Your task to perform on an android device: change the clock display to analog Image 0: 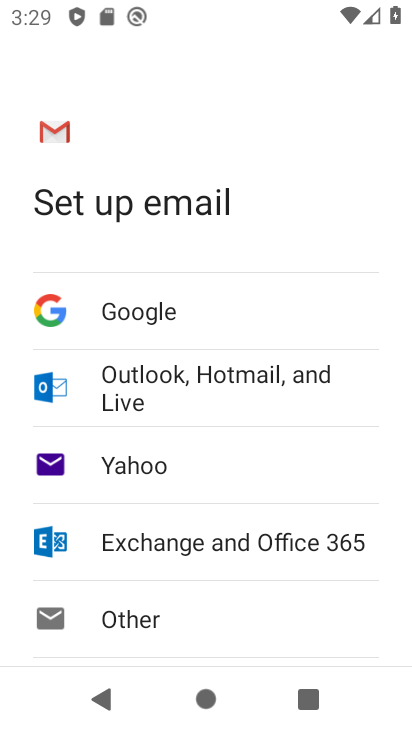
Step 0: press home button
Your task to perform on an android device: change the clock display to analog Image 1: 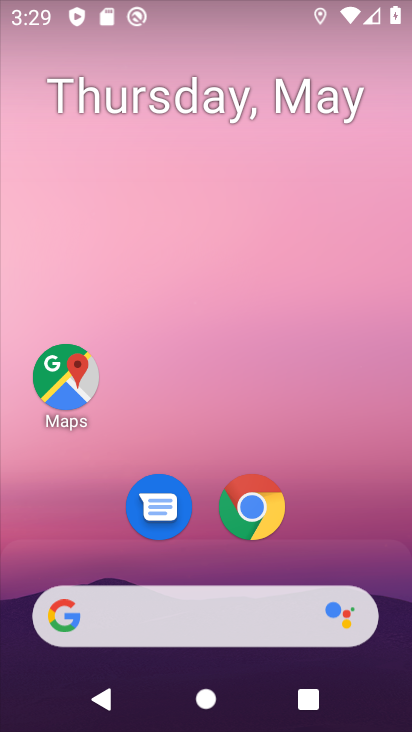
Step 1: drag from (293, 564) to (229, 2)
Your task to perform on an android device: change the clock display to analog Image 2: 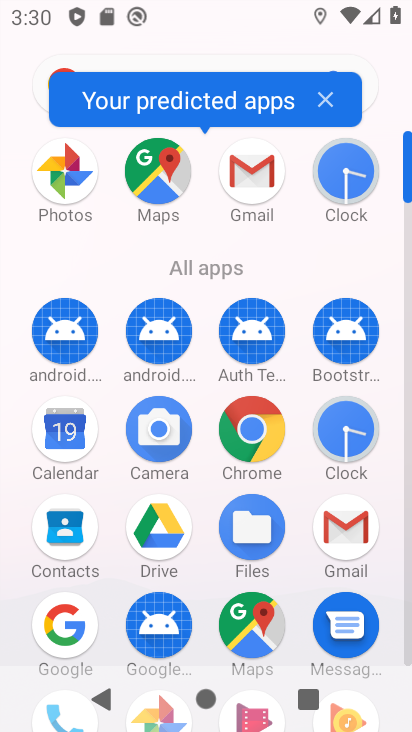
Step 2: click (354, 438)
Your task to perform on an android device: change the clock display to analog Image 3: 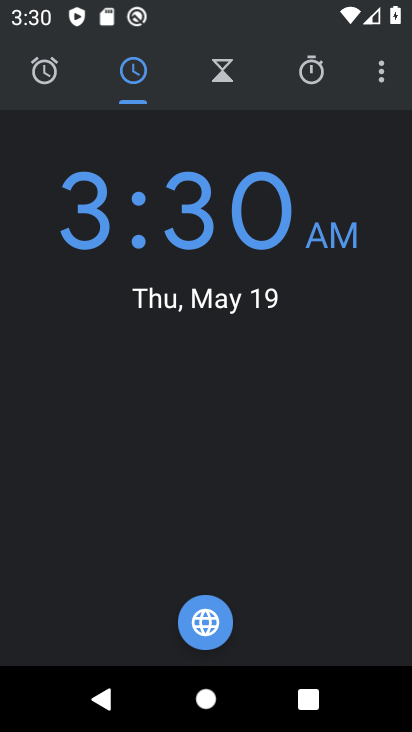
Step 3: click (369, 69)
Your task to perform on an android device: change the clock display to analog Image 4: 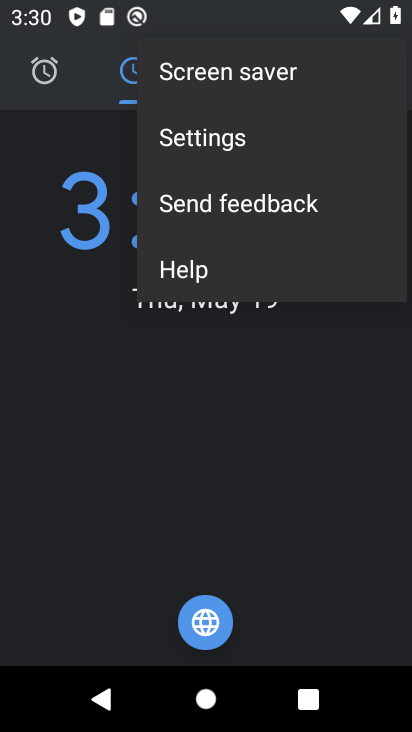
Step 4: click (214, 124)
Your task to perform on an android device: change the clock display to analog Image 5: 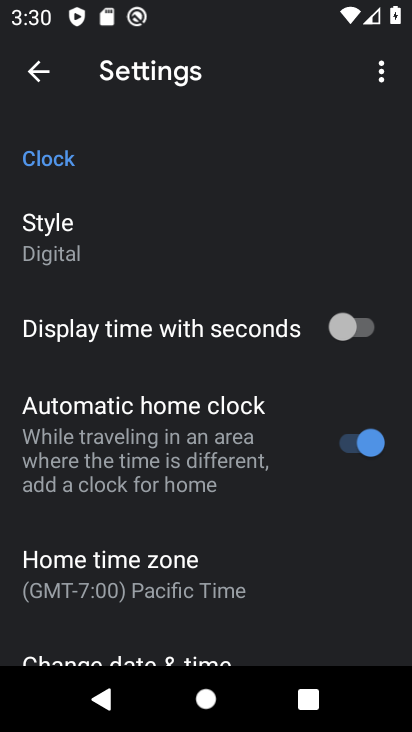
Step 5: click (152, 250)
Your task to perform on an android device: change the clock display to analog Image 6: 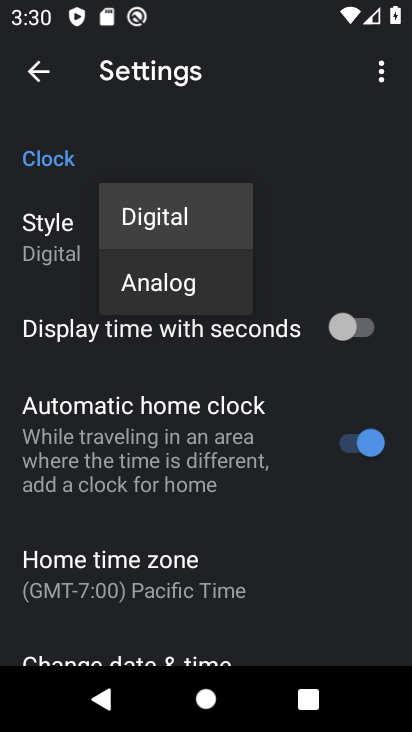
Step 6: click (189, 281)
Your task to perform on an android device: change the clock display to analog Image 7: 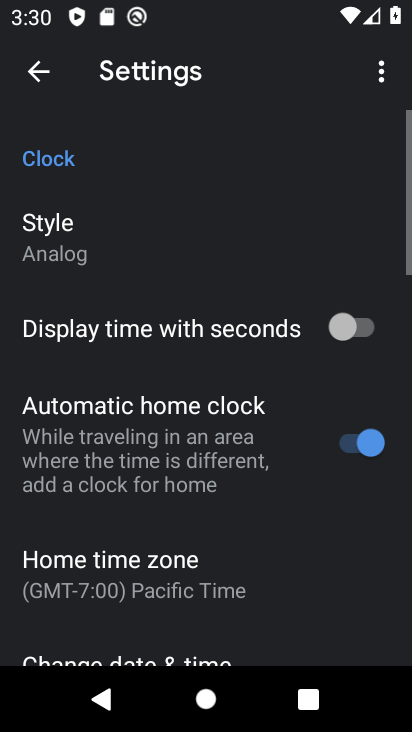
Step 7: task complete